Your task to perform on an android device: Go to internet settings Image 0: 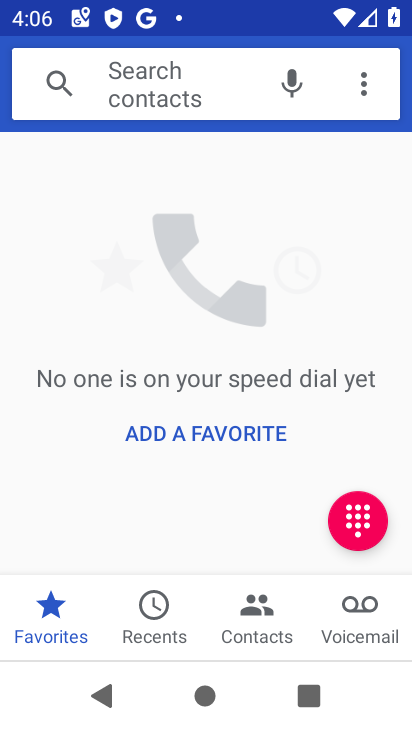
Step 0: press home button
Your task to perform on an android device: Go to internet settings Image 1: 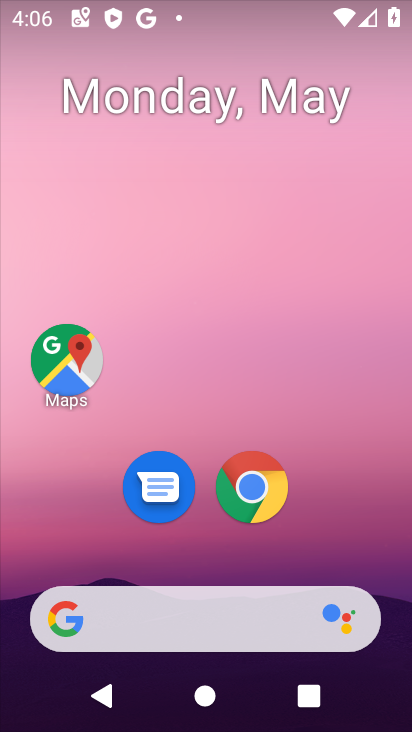
Step 1: drag from (329, 561) to (322, 22)
Your task to perform on an android device: Go to internet settings Image 2: 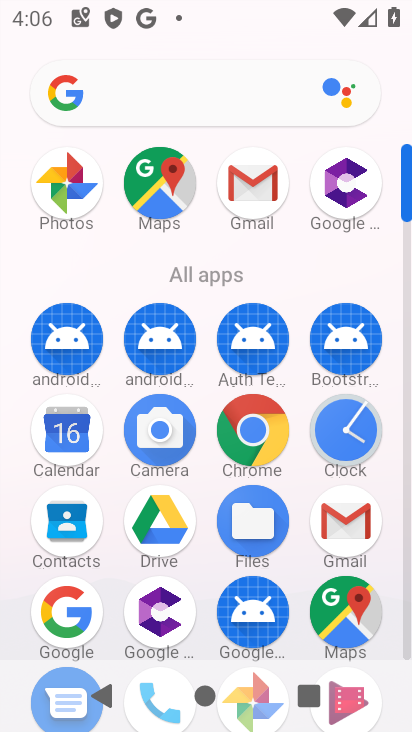
Step 2: drag from (403, 537) to (399, 452)
Your task to perform on an android device: Go to internet settings Image 3: 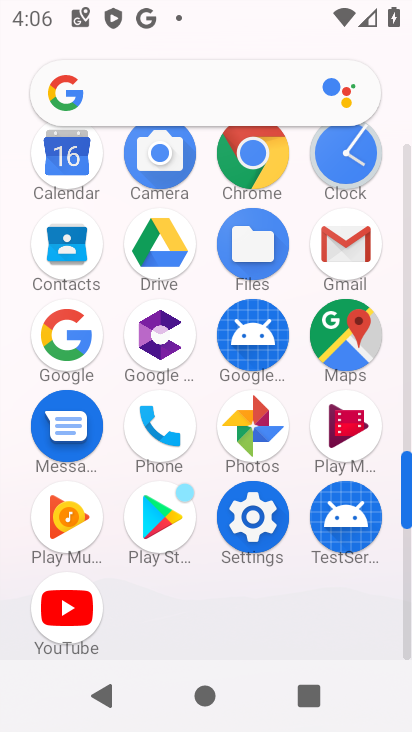
Step 3: click (266, 516)
Your task to perform on an android device: Go to internet settings Image 4: 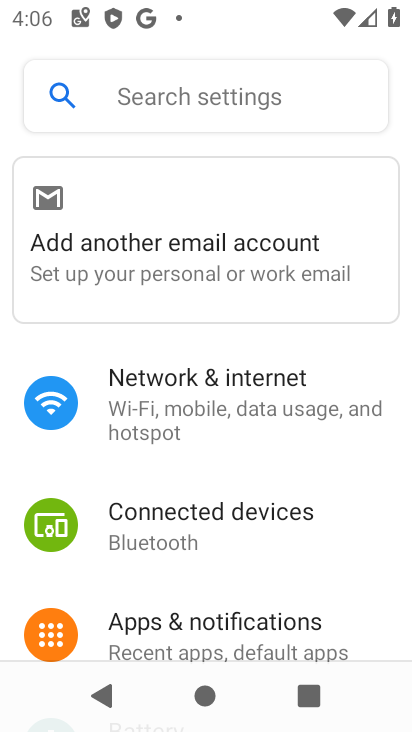
Step 4: click (187, 421)
Your task to perform on an android device: Go to internet settings Image 5: 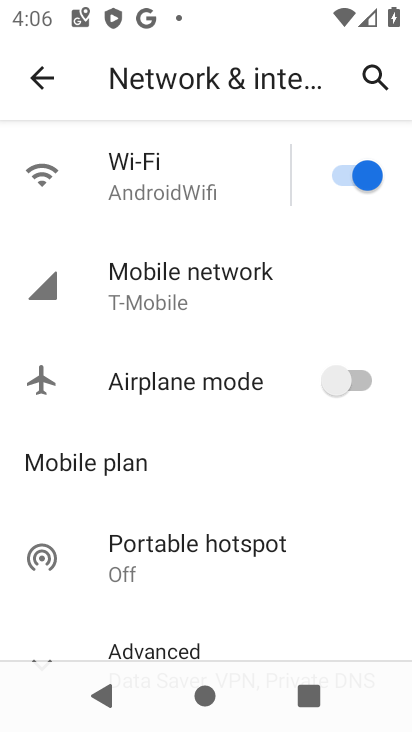
Step 5: task complete